Your task to perform on an android device: Open Chrome and go to settings Image 0: 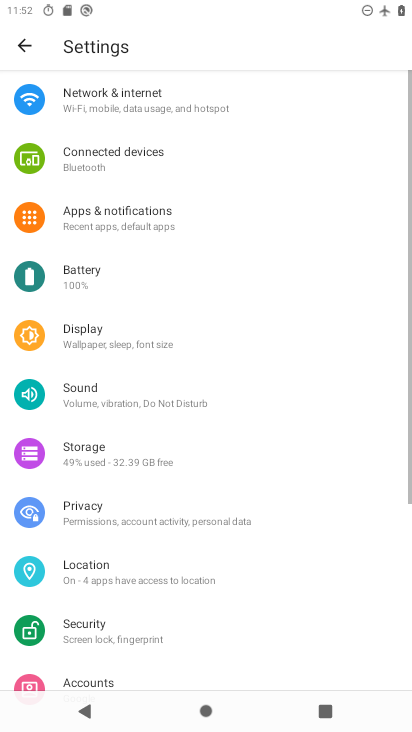
Step 0: press home button
Your task to perform on an android device: Open Chrome and go to settings Image 1: 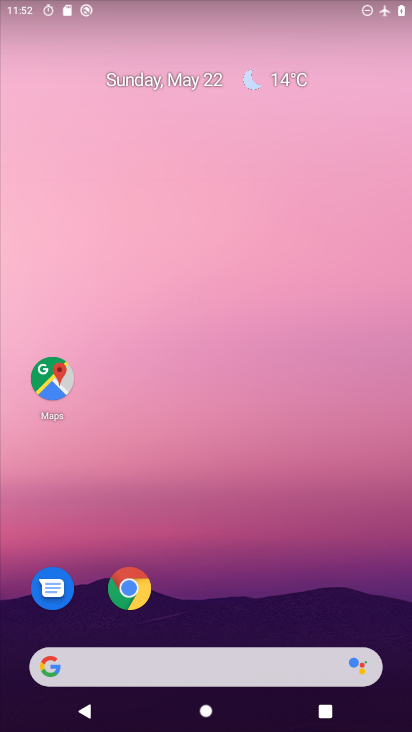
Step 1: click (139, 597)
Your task to perform on an android device: Open Chrome and go to settings Image 2: 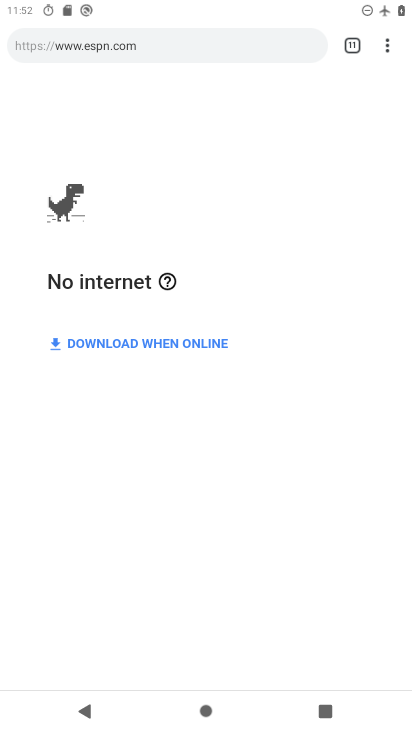
Step 2: click (379, 48)
Your task to perform on an android device: Open Chrome and go to settings Image 3: 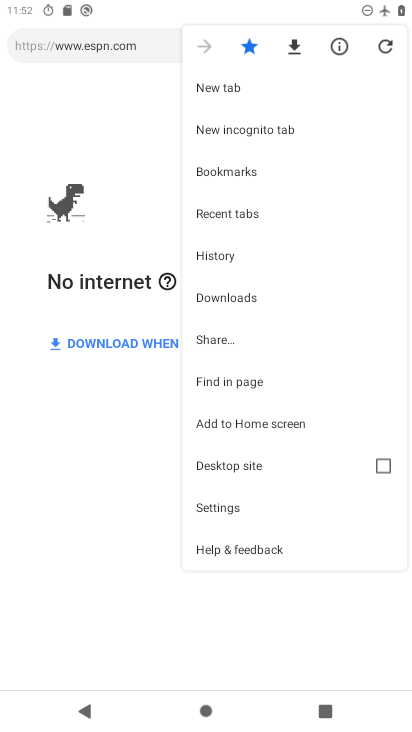
Step 3: click (240, 503)
Your task to perform on an android device: Open Chrome and go to settings Image 4: 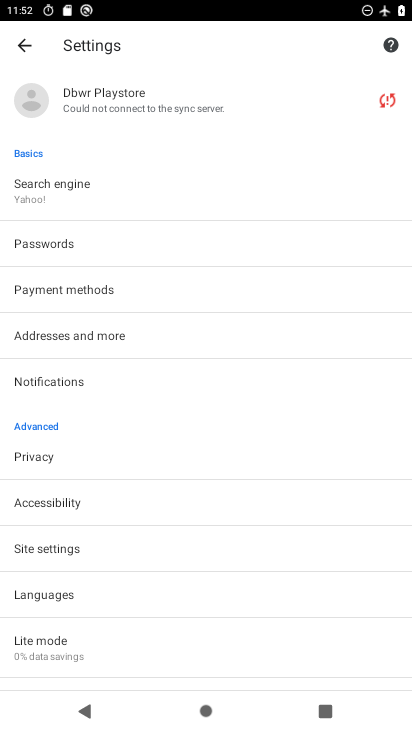
Step 4: task complete